Your task to perform on an android device: open wifi settings Image 0: 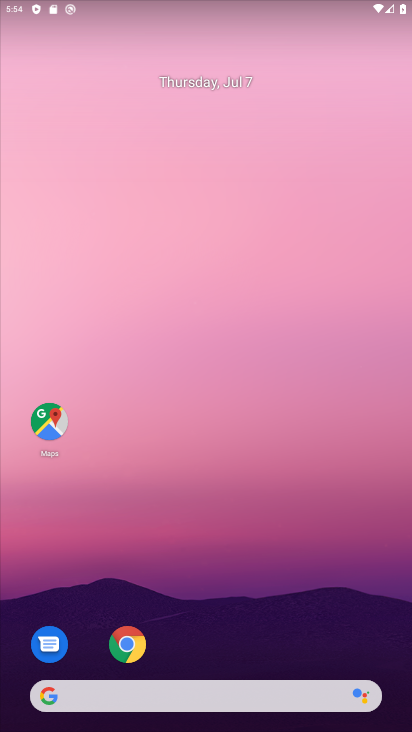
Step 0: drag from (338, 556) to (207, 47)
Your task to perform on an android device: open wifi settings Image 1: 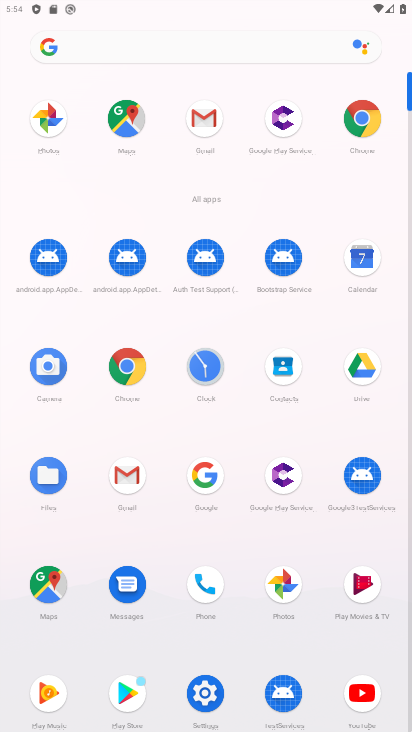
Step 1: click (219, 699)
Your task to perform on an android device: open wifi settings Image 2: 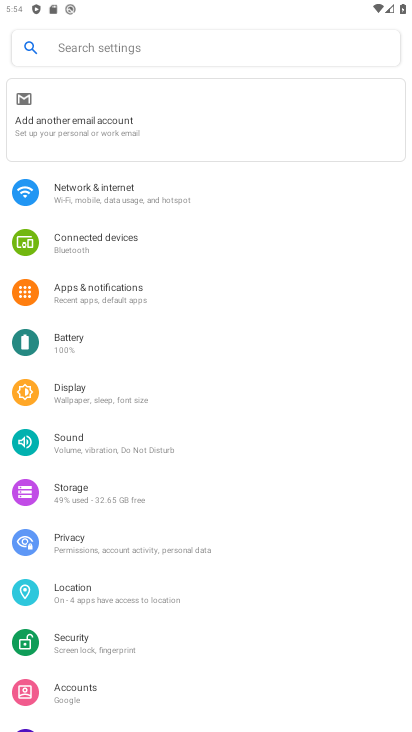
Step 2: click (55, 204)
Your task to perform on an android device: open wifi settings Image 3: 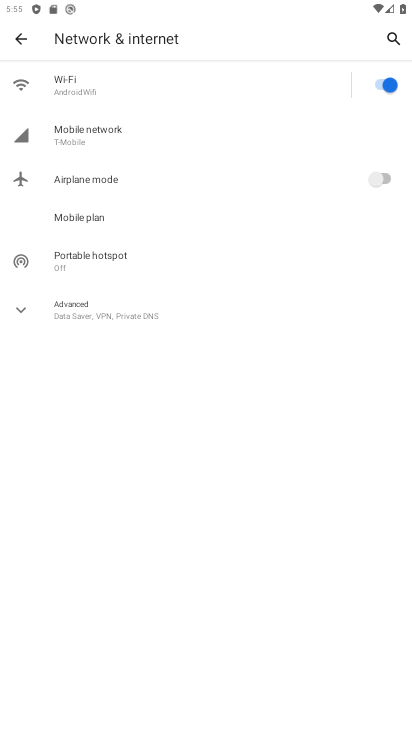
Step 3: task complete